Your task to perform on an android device: Go to privacy settings Image 0: 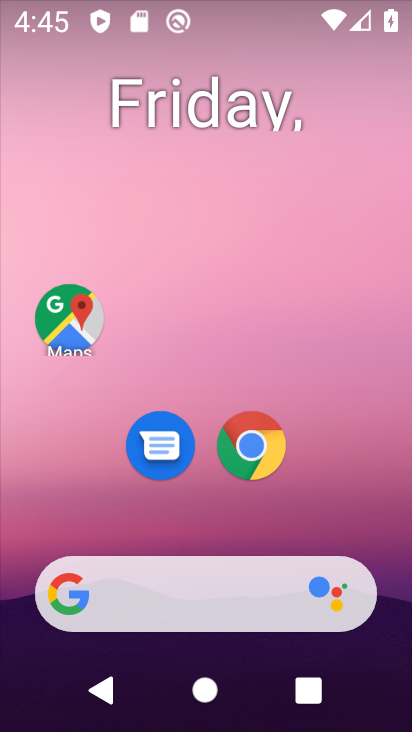
Step 0: drag from (314, 500) to (331, 45)
Your task to perform on an android device: Go to privacy settings Image 1: 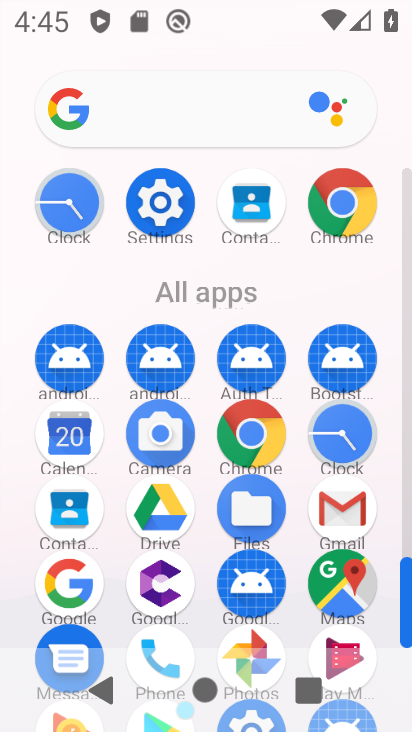
Step 1: click (161, 188)
Your task to perform on an android device: Go to privacy settings Image 2: 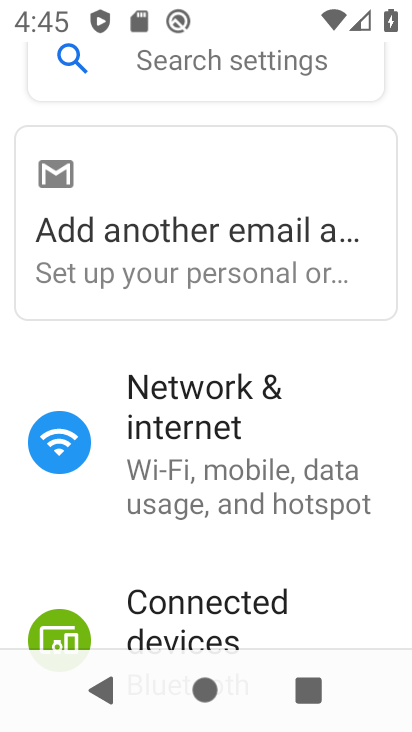
Step 2: drag from (161, 617) to (177, 324)
Your task to perform on an android device: Go to privacy settings Image 3: 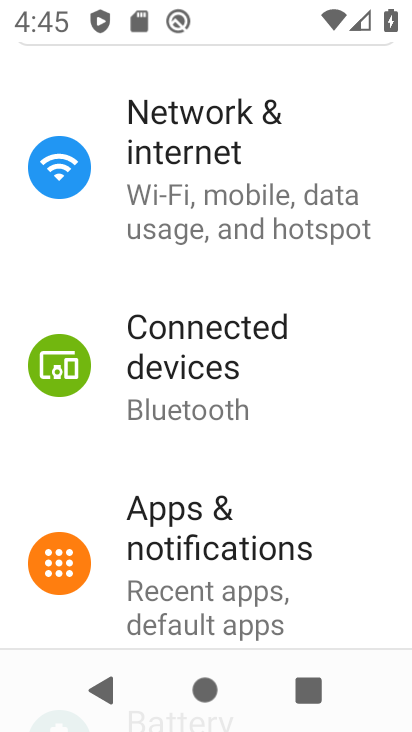
Step 3: drag from (211, 629) to (265, 335)
Your task to perform on an android device: Go to privacy settings Image 4: 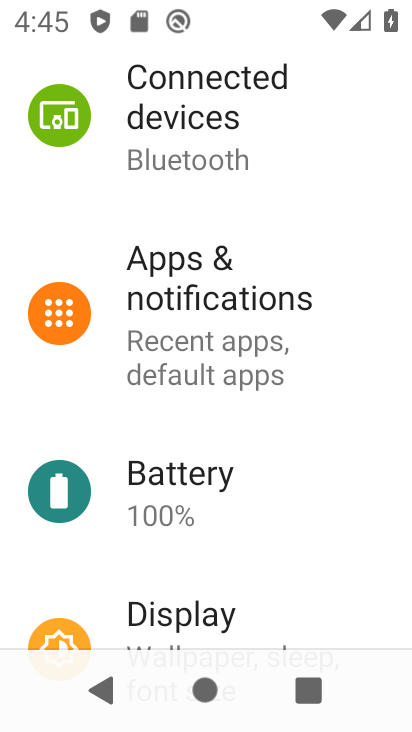
Step 4: drag from (277, 530) to (341, 200)
Your task to perform on an android device: Go to privacy settings Image 5: 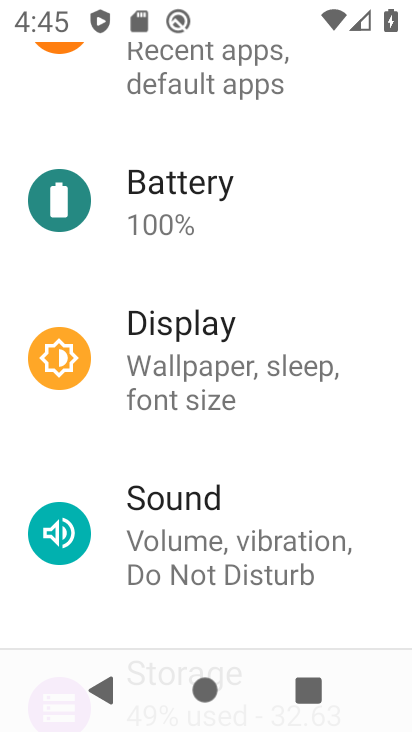
Step 5: drag from (223, 520) to (218, 209)
Your task to perform on an android device: Go to privacy settings Image 6: 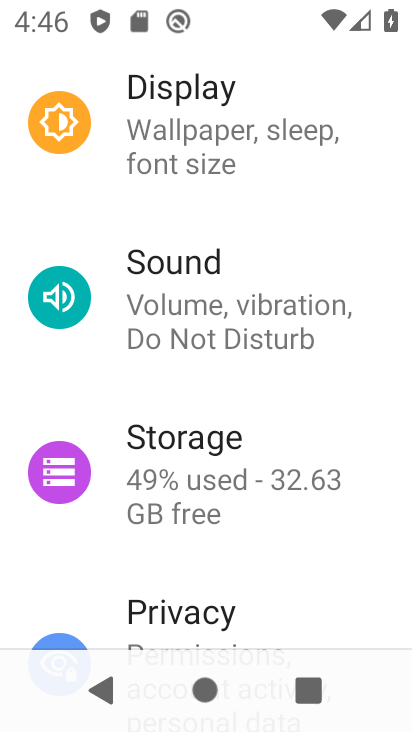
Step 6: click (161, 590)
Your task to perform on an android device: Go to privacy settings Image 7: 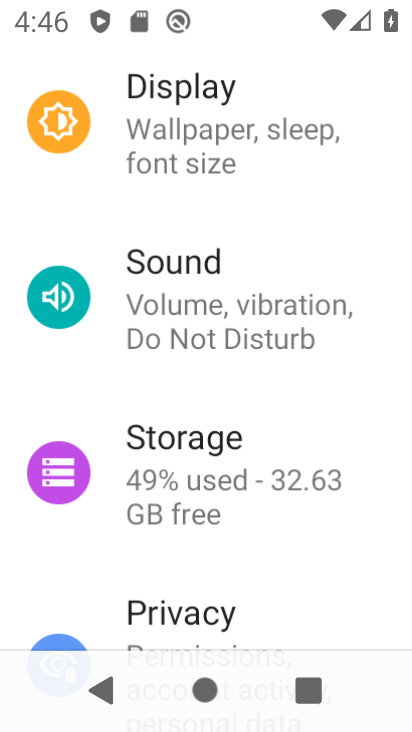
Step 7: task complete